Your task to perform on an android device: turn off notifications settings in the gmail app Image 0: 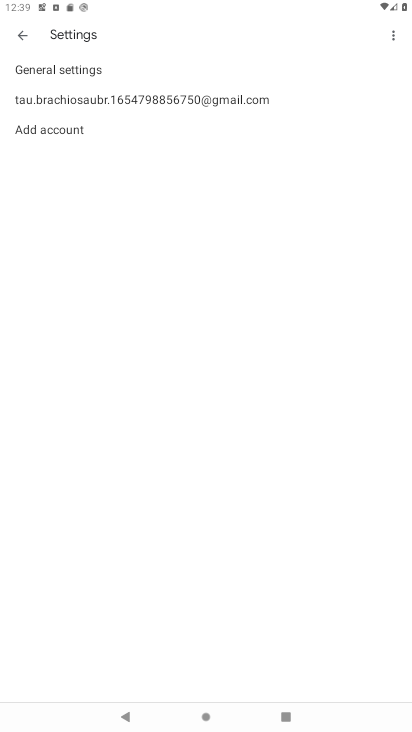
Step 0: click (201, 92)
Your task to perform on an android device: turn off notifications settings in the gmail app Image 1: 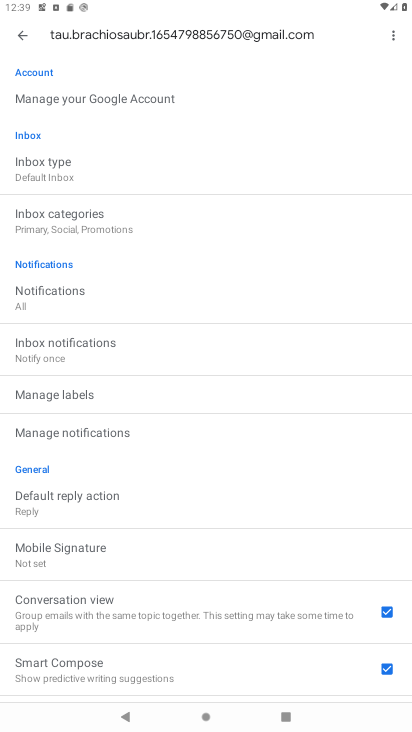
Step 1: click (97, 432)
Your task to perform on an android device: turn off notifications settings in the gmail app Image 2: 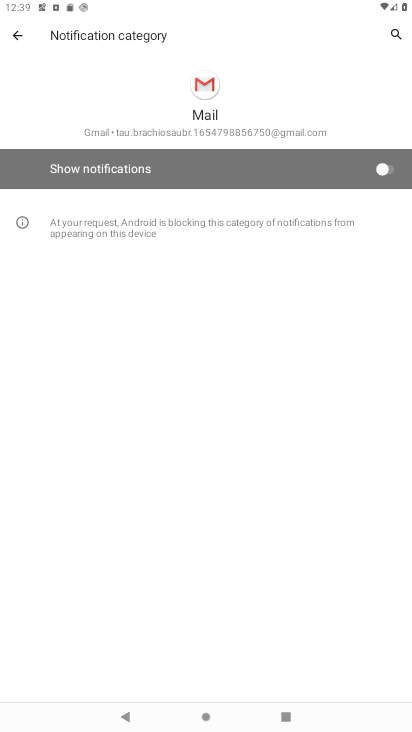
Step 2: task complete